Your task to perform on an android device: add a label to a message in the gmail app Image 0: 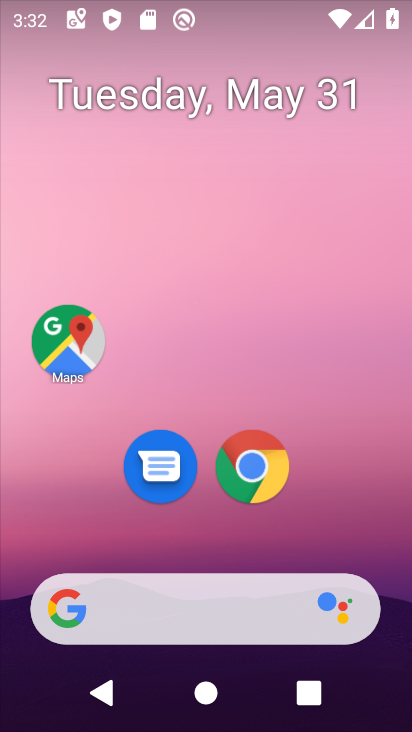
Step 0: drag from (190, 487) to (246, 40)
Your task to perform on an android device: add a label to a message in the gmail app Image 1: 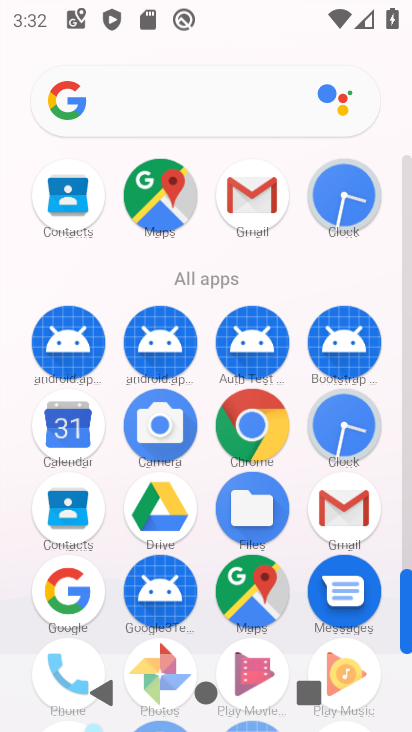
Step 1: click (258, 185)
Your task to perform on an android device: add a label to a message in the gmail app Image 2: 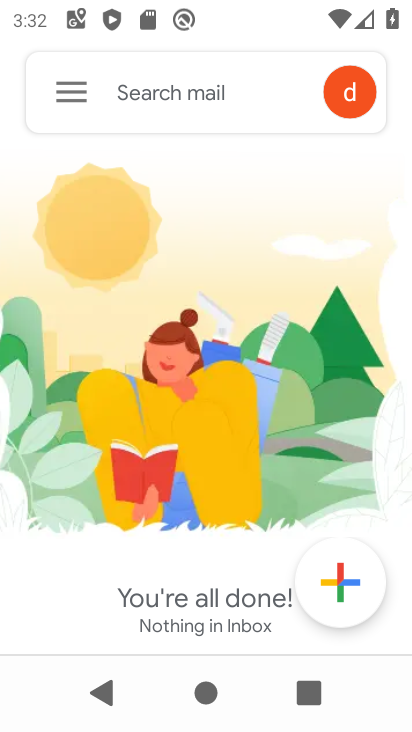
Step 2: click (64, 89)
Your task to perform on an android device: add a label to a message in the gmail app Image 3: 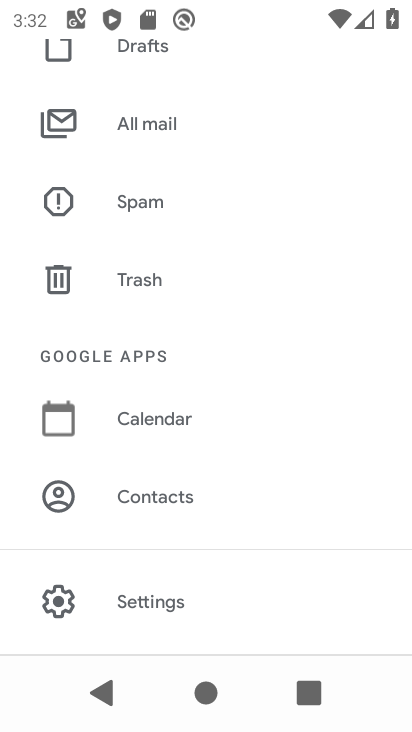
Step 3: click (152, 124)
Your task to perform on an android device: add a label to a message in the gmail app Image 4: 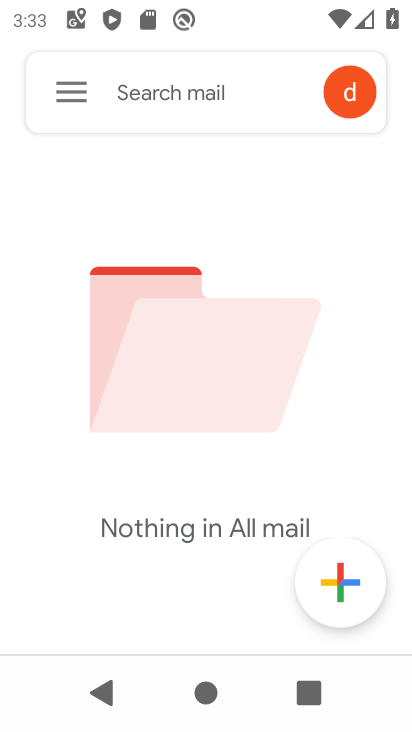
Step 4: task complete